Your task to perform on an android device: Open sound settings Image 0: 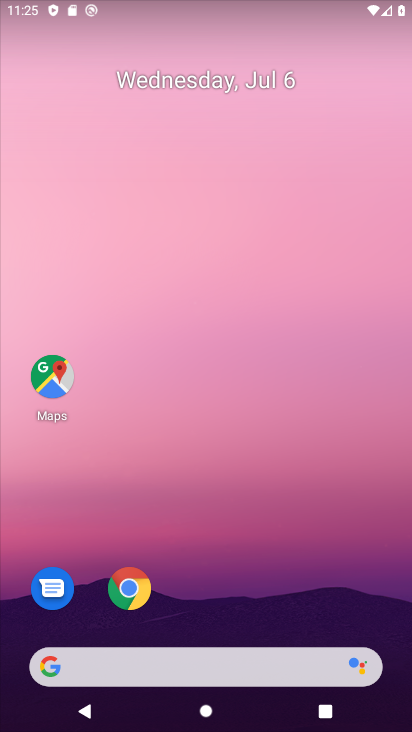
Step 0: drag from (249, 555) to (282, 146)
Your task to perform on an android device: Open sound settings Image 1: 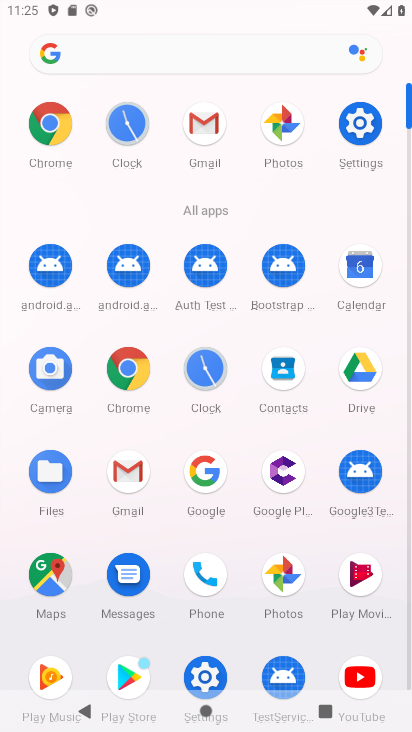
Step 1: click (368, 102)
Your task to perform on an android device: Open sound settings Image 2: 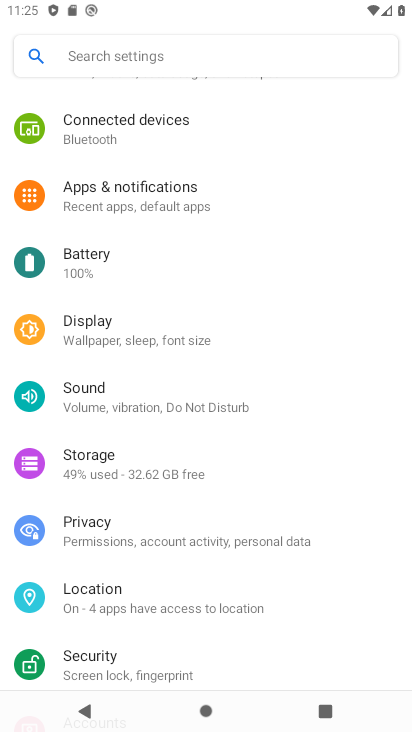
Step 2: drag from (216, 578) to (282, 204)
Your task to perform on an android device: Open sound settings Image 3: 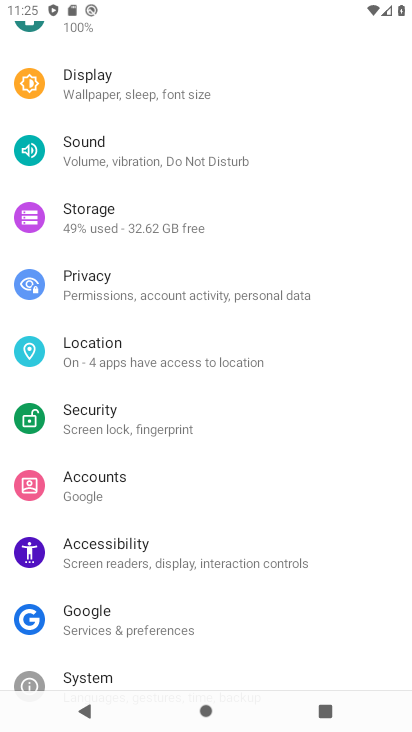
Step 3: drag from (264, 165) to (281, 716)
Your task to perform on an android device: Open sound settings Image 4: 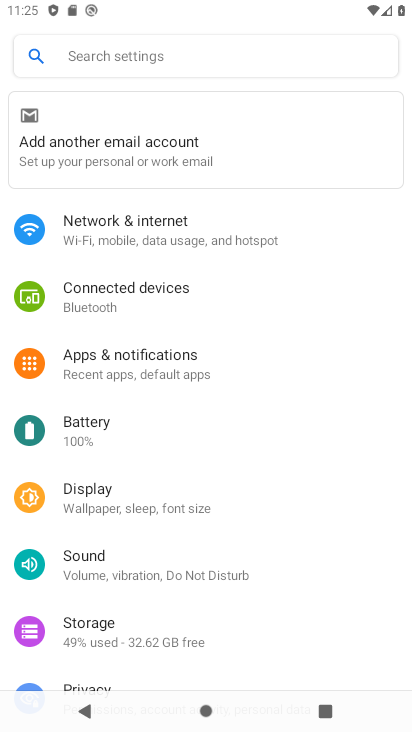
Step 4: click (121, 553)
Your task to perform on an android device: Open sound settings Image 5: 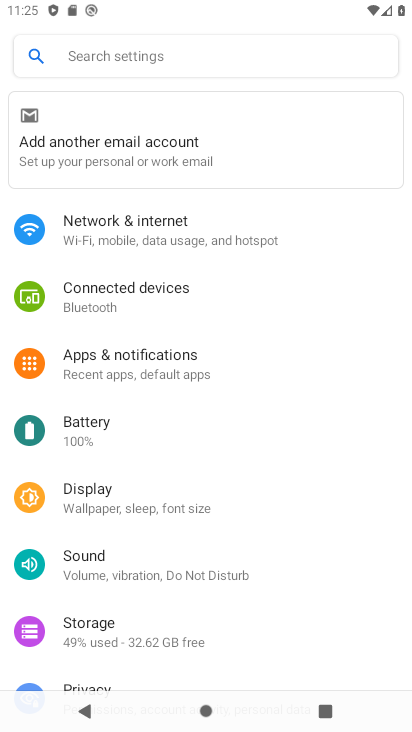
Step 5: click (121, 553)
Your task to perform on an android device: Open sound settings Image 6: 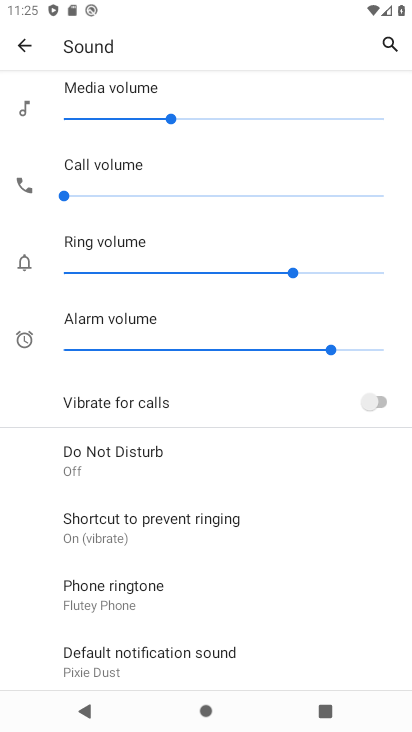
Step 6: task complete